Your task to perform on an android device: check android version Image 0: 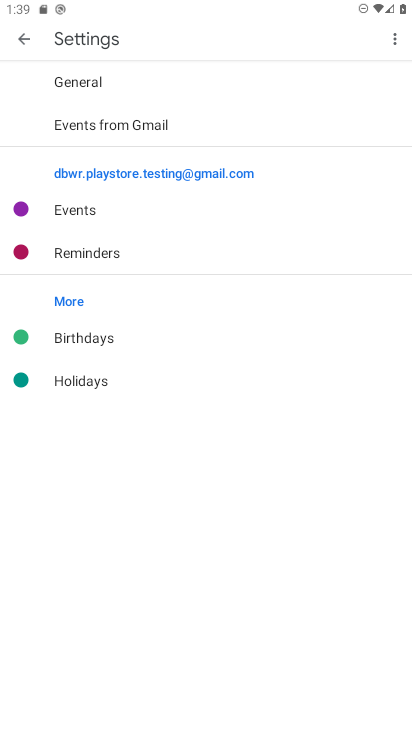
Step 0: press home button
Your task to perform on an android device: check android version Image 1: 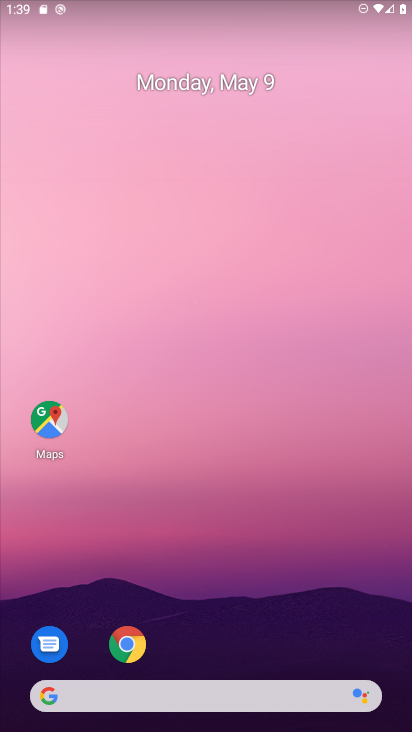
Step 1: drag from (288, 606) to (234, 120)
Your task to perform on an android device: check android version Image 2: 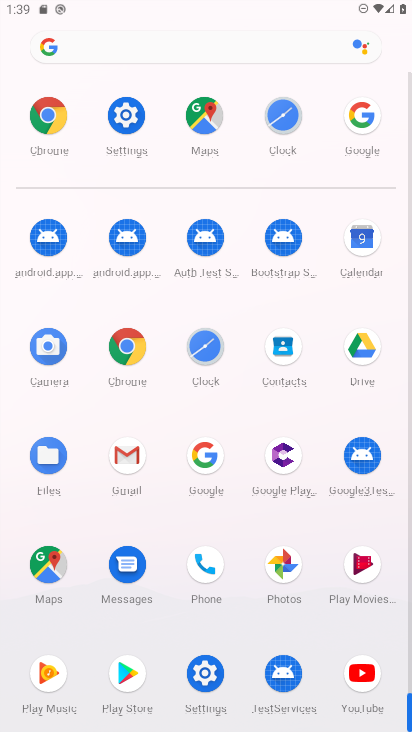
Step 2: click (198, 713)
Your task to perform on an android device: check android version Image 3: 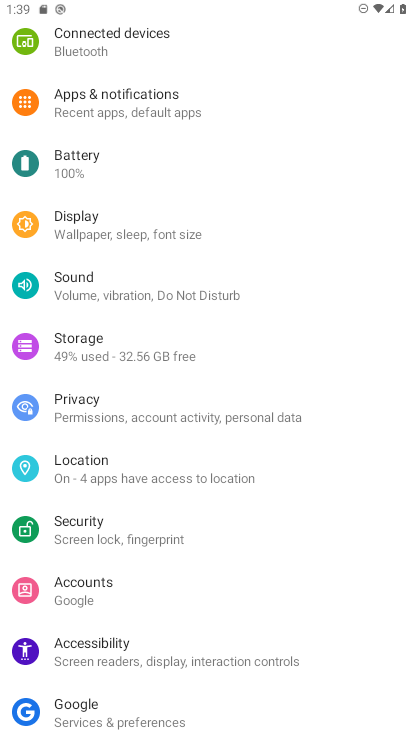
Step 3: drag from (141, 538) to (197, 275)
Your task to perform on an android device: check android version Image 4: 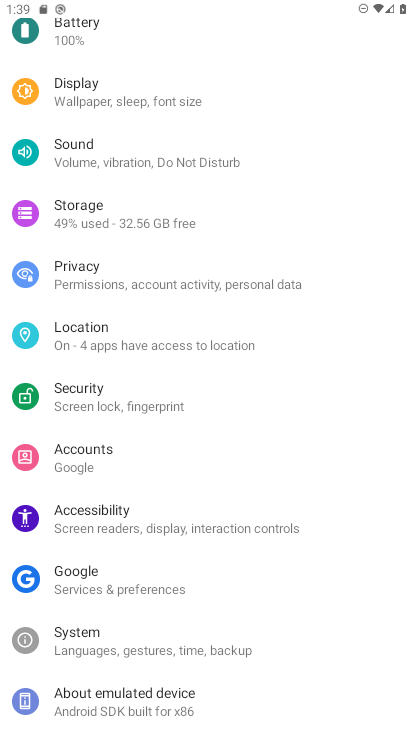
Step 4: click (125, 649)
Your task to perform on an android device: check android version Image 5: 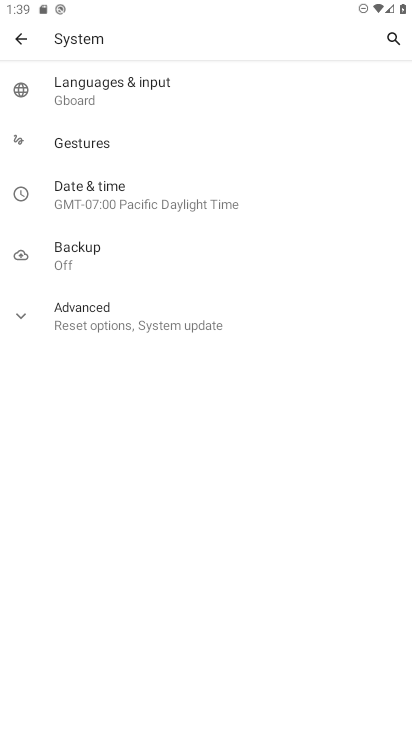
Step 5: click (73, 324)
Your task to perform on an android device: check android version Image 6: 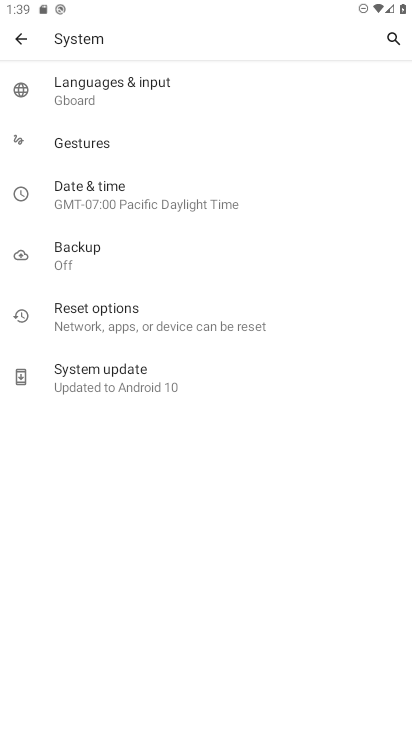
Step 6: click (149, 392)
Your task to perform on an android device: check android version Image 7: 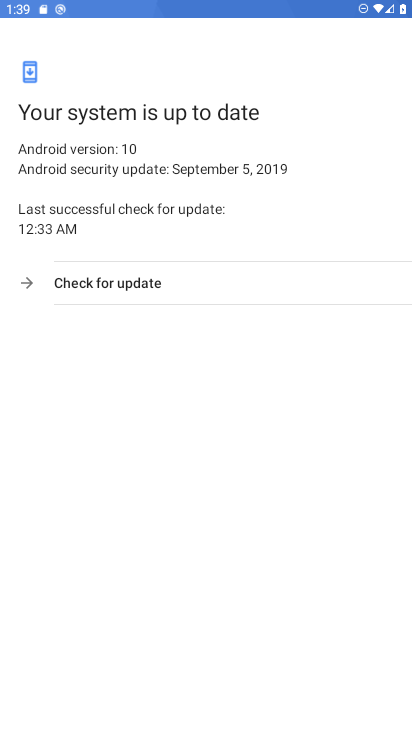
Step 7: task complete